Your task to perform on an android device: What is the news today? Image 0: 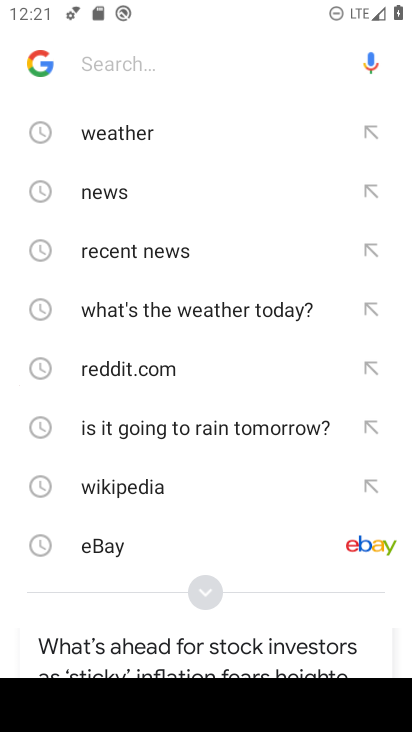
Step 0: press home button
Your task to perform on an android device: What is the news today? Image 1: 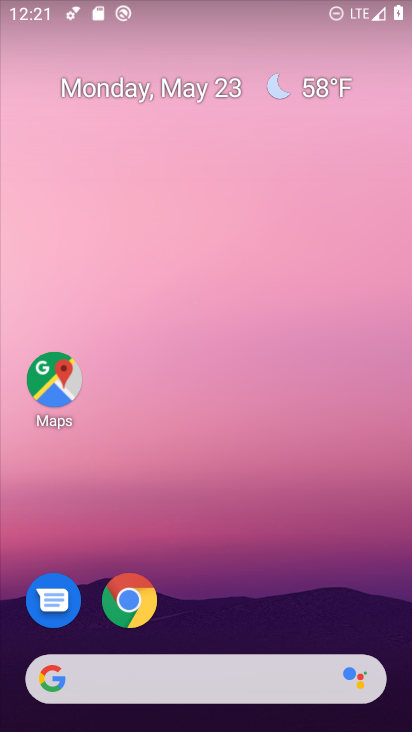
Step 1: drag from (237, 582) to (285, 62)
Your task to perform on an android device: What is the news today? Image 2: 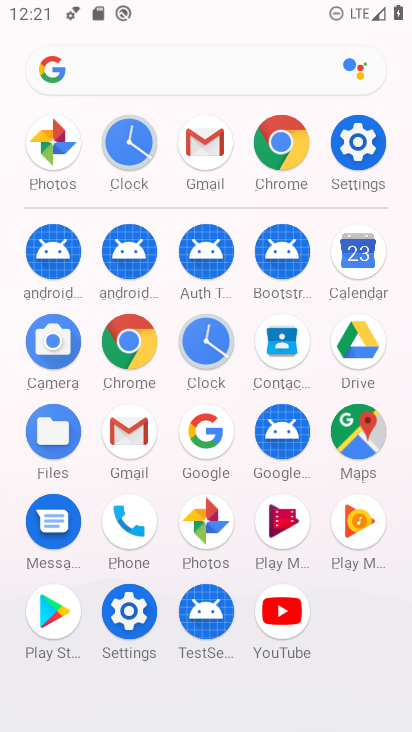
Step 2: click (270, 143)
Your task to perform on an android device: What is the news today? Image 3: 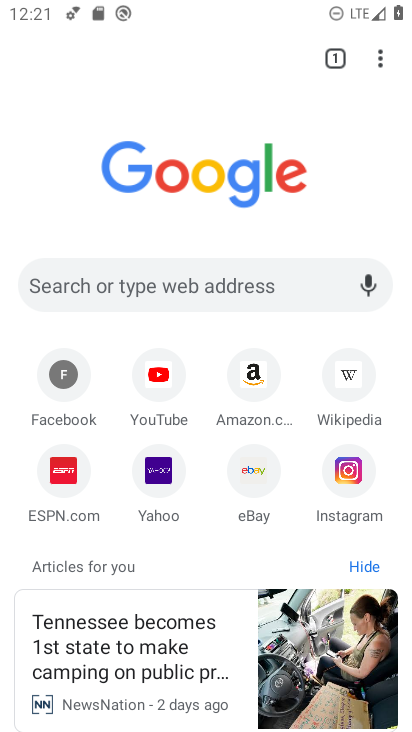
Step 3: task complete